Your task to perform on an android device: open device folders in google photos Image 0: 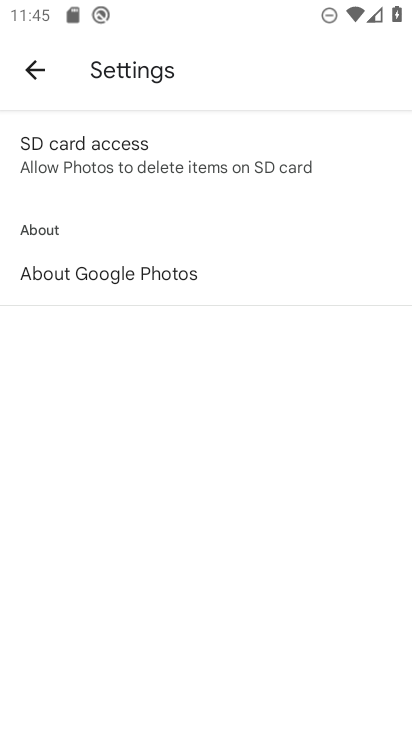
Step 0: press home button
Your task to perform on an android device: open device folders in google photos Image 1: 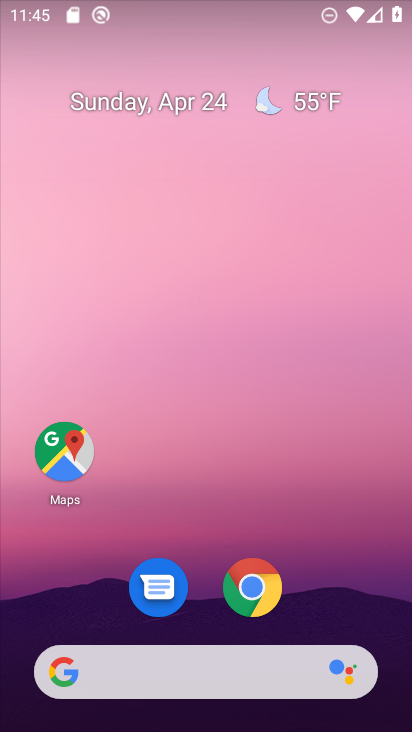
Step 1: drag from (318, 604) to (311, 75)
Your task to perform on an android device: open device folders in google photos Image 2: 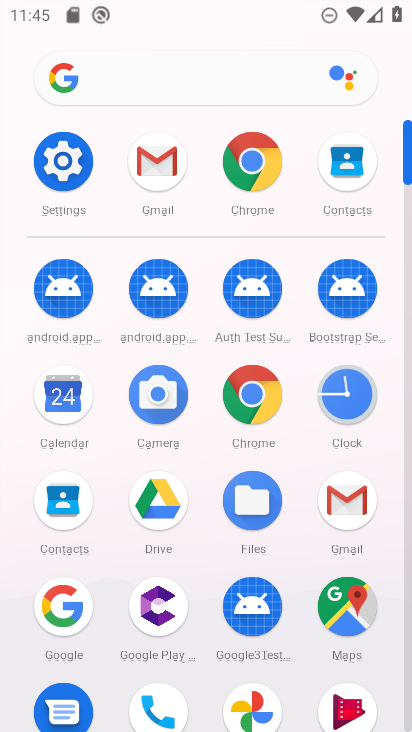
Step 2: click (271, 696)
Your task to perform on an android device: open device folders in google photos Image 3: 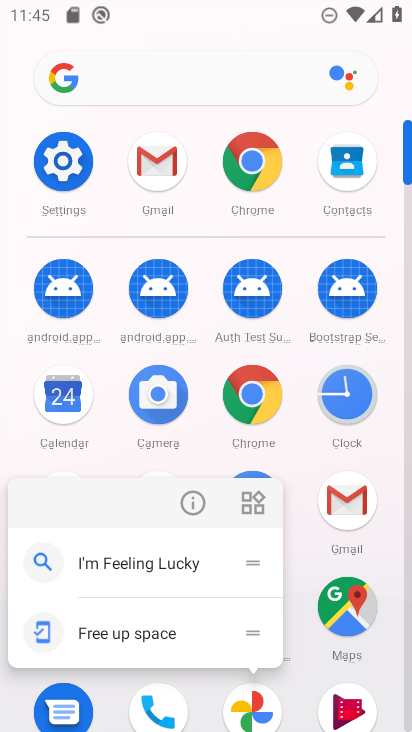
Step 3: click (266, 705)
Your task to perform on an android device: open device folders in google photos Image 4: 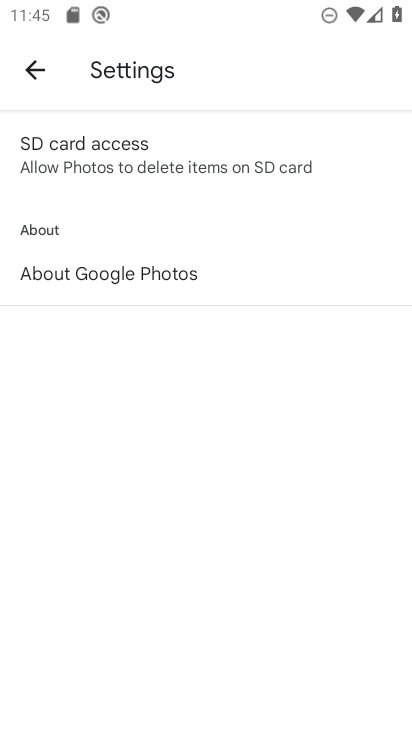
Step 4: click (35, 68)
Your task to perform on an android device: open device folders in google photos Image 5: 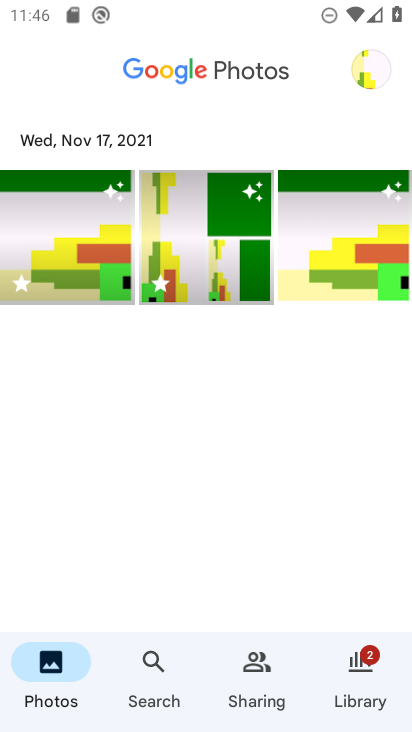
Step 5: click (375, 51)
Your task to perform on an android device: open device folders in google photos Image 6: 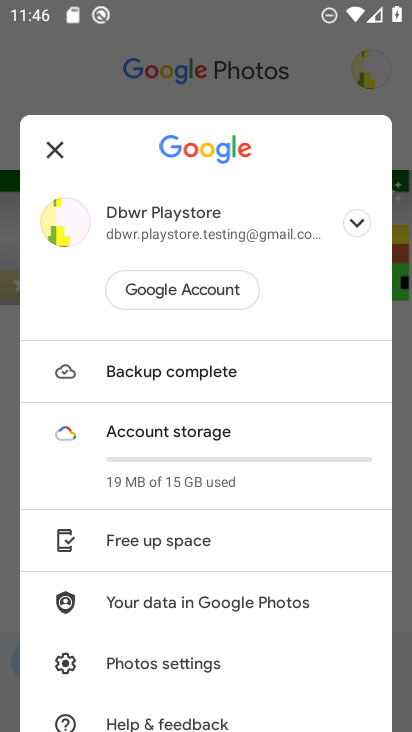
Step 6: drag from (196, 464) to (161, 561)
Your task to perform on an android device: open device folders in google photos Image 7: 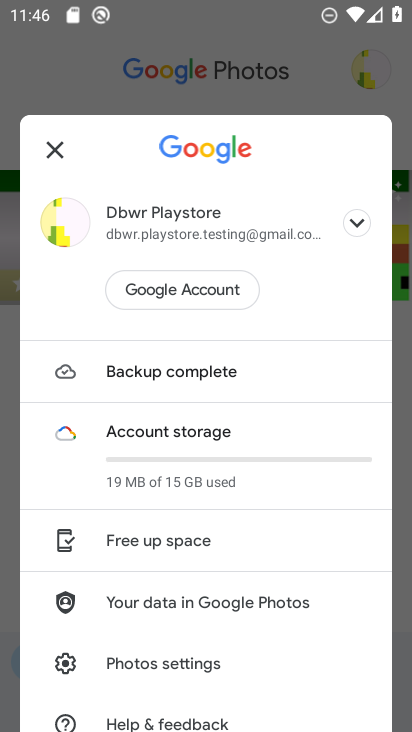
Step 7: click (45, 156)
Your task to perform on an android device: open device folders in google photos Image 8: 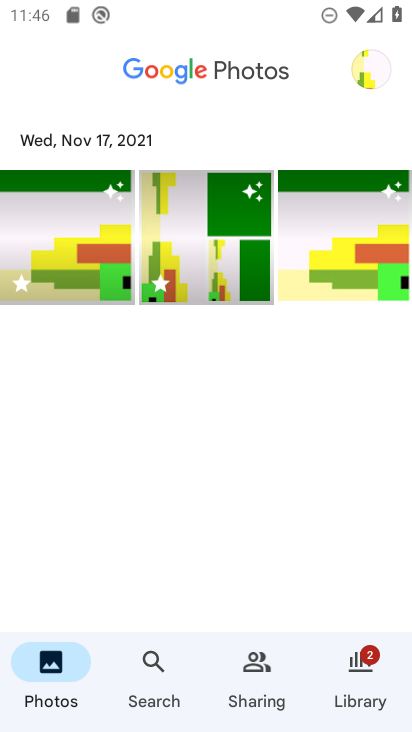
Step 8: click (377, 68)
Your task to perform on an android device: open device folders in google photos Image 9: 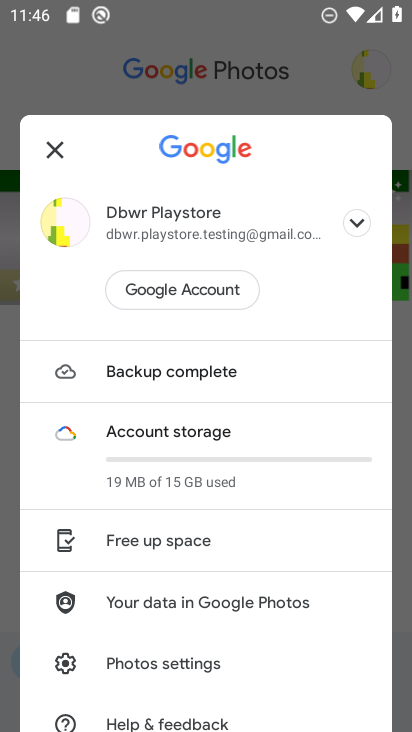
Step 9: drag from (245, 539) to (184, 436)
Your task to perform on an android device: open device folders in google photos Image 10: 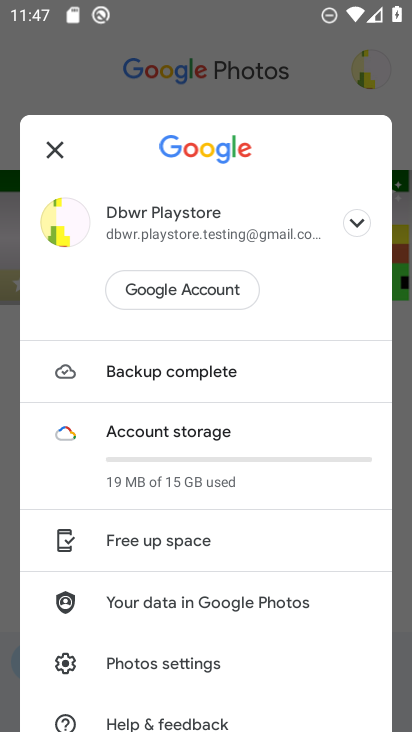
Step 10: drag from (249, 503) to (270, 233)
Your task to perform on an android device: open device folders in google photos Image 11: 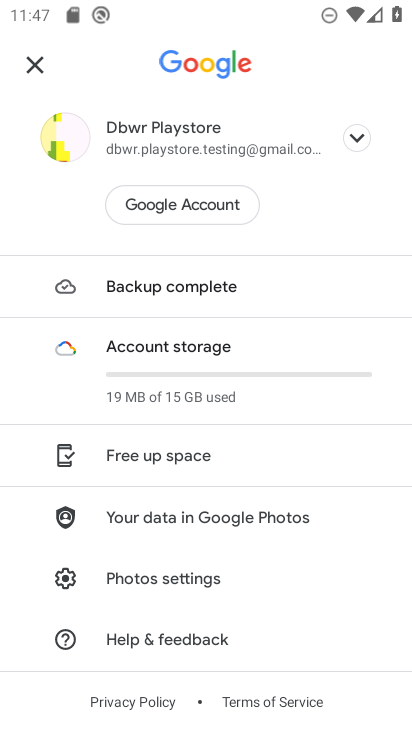
Step 11: click (274, 219)
Your task to perform on an android device: open device folders in google photos Image 12: 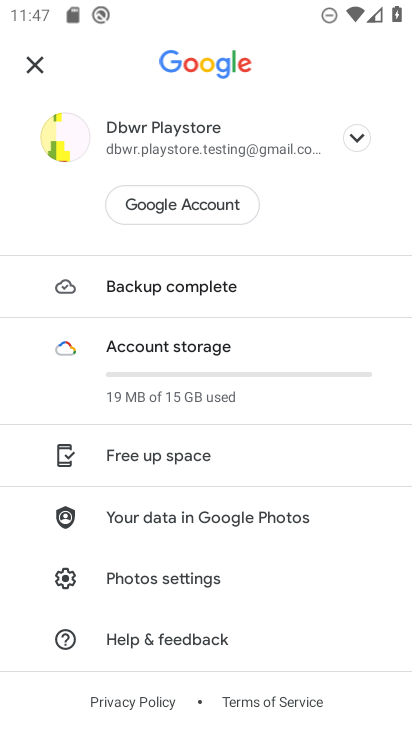
Step 12: click (278, 210)
Your task to perform on an android device: open device folders in google photos Image 13: 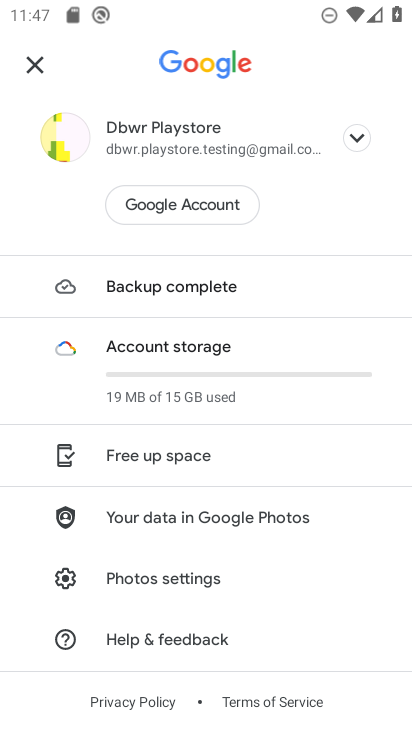
Step 13: click (43, 72)
Your task to perform on an android device: open device folders in google photos Image 14: 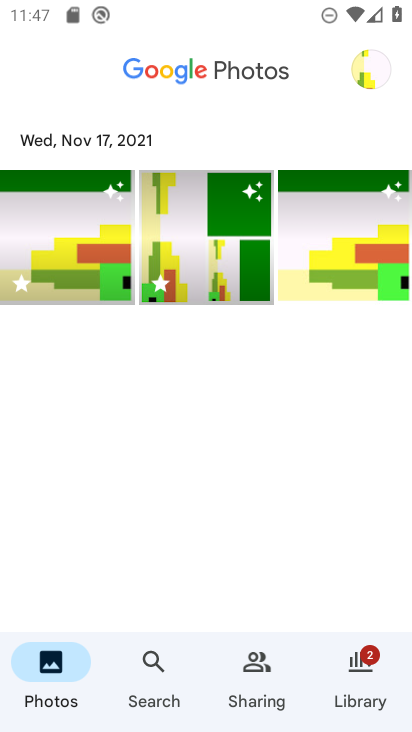
Step 14: task complete